Your task to perform on an android device: turn off notifications in google photos Image 0: 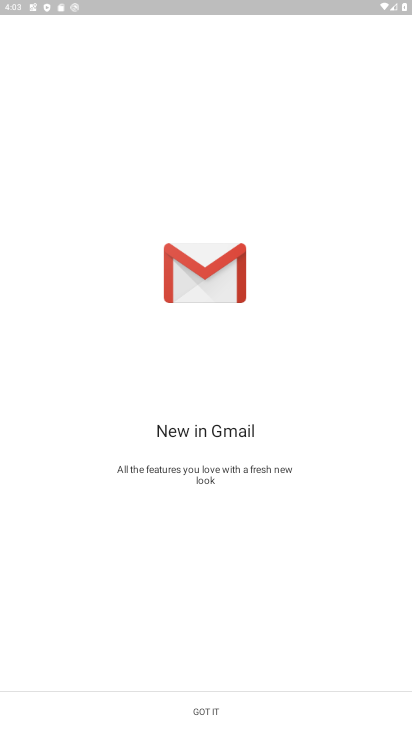
Step 0: press home button
Your task to perform on an android device: turn off notifications in google photos Image 1: 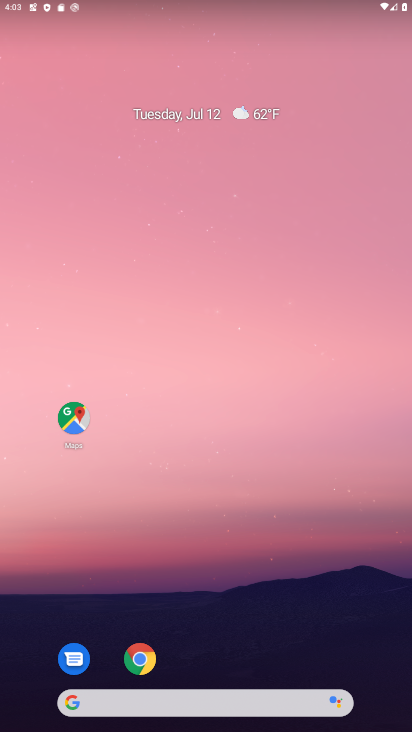
Step 1: drag from (222, 665) to (202, 185)
Your task to perform on an android device: turn off notifications in google photos Image 2: 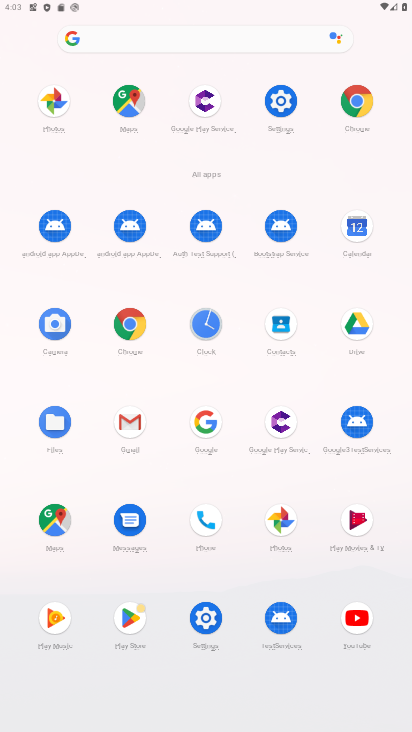
Step 2: click (279, 518)
Your task to perform on an android device: turn off notifications in google photos Image 3: 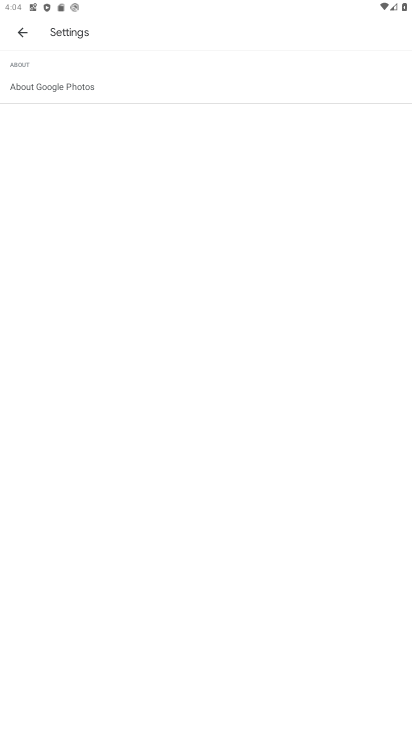
Step 3: press home button
Your task to perform on an android device: turn off notifications in google photos Image 4: 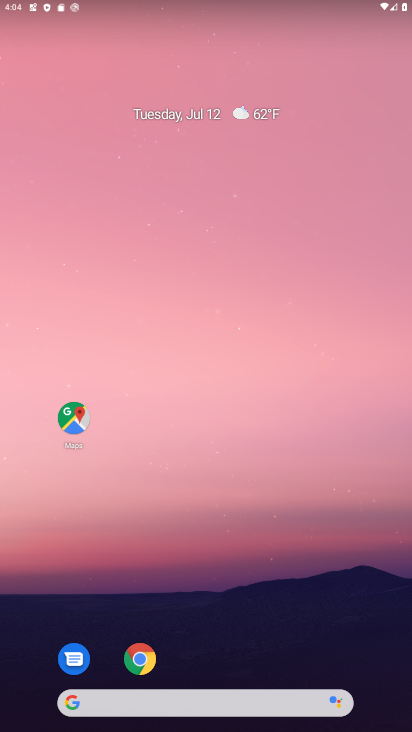
Step 4: drag from (192, 483) to (186, 129)
Your task to perform on an android device: turn off notifications in google photos Image 5: 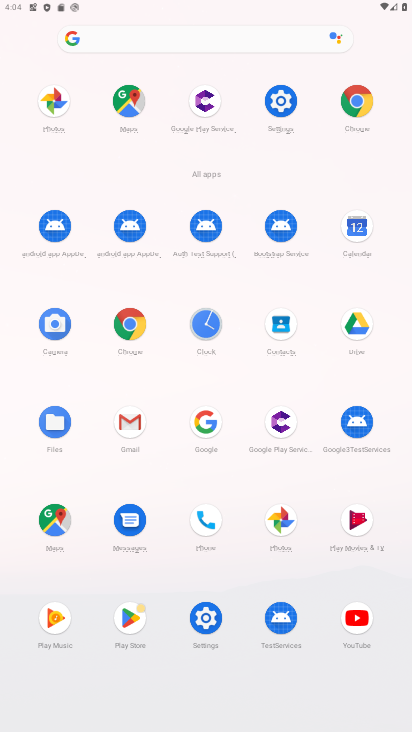
Step 5: click (279, 515)
Your task to perform on an android device: turn off notifications in google photos Image 6: 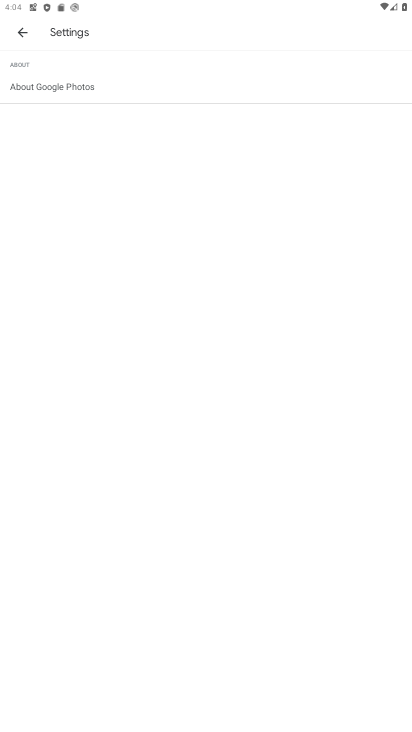
Step 6: click (26, 35)
Your task to perform on an android device: turn off notifications in google photos Image 7: 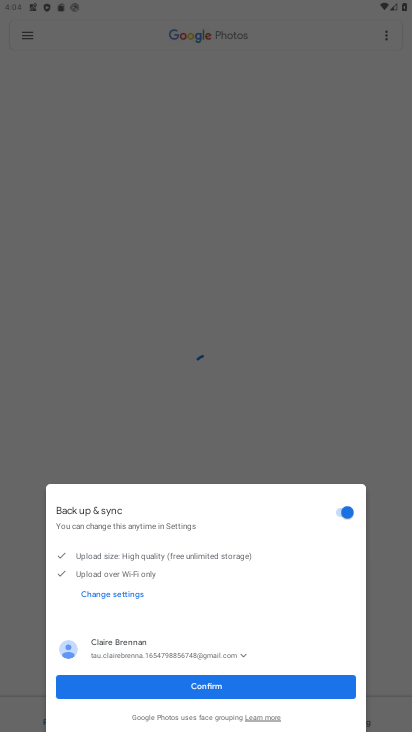
Step 7: click (210, 685)
Your task to perform on an android device: turn off notifications in google photos Image 8: 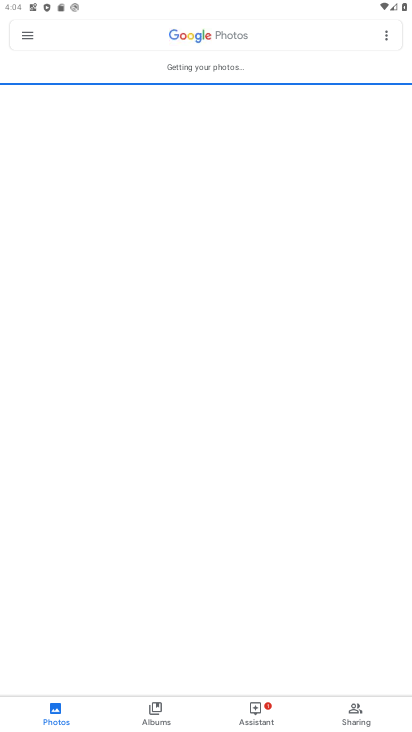
Step 8: click (31, 32)
Your task to perform on an android device: turn off notifications in google photos Image 9: 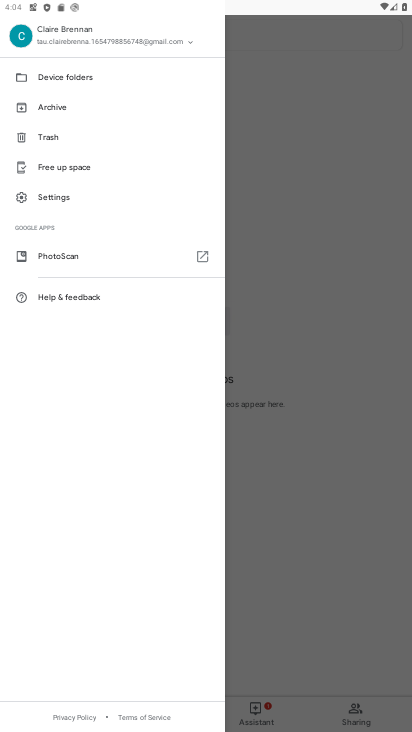
Step 9: click (70, 191)
Your task to perform on an android device: turn off notifications in google photos Image 10: 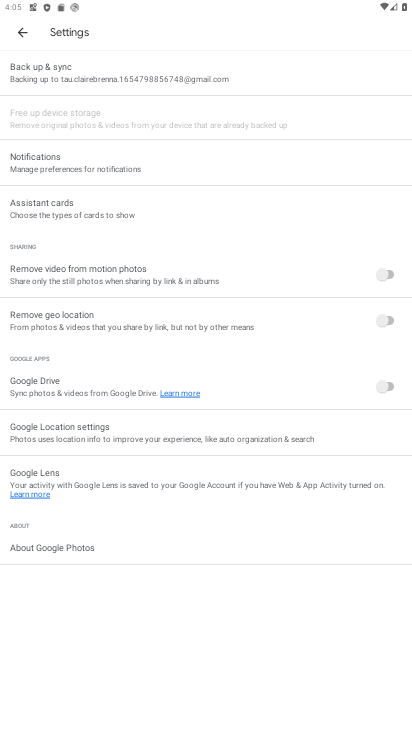
Step 10: click (90, 163)
Your task to perform on an android device: turn off notifications in google photos Image 11: 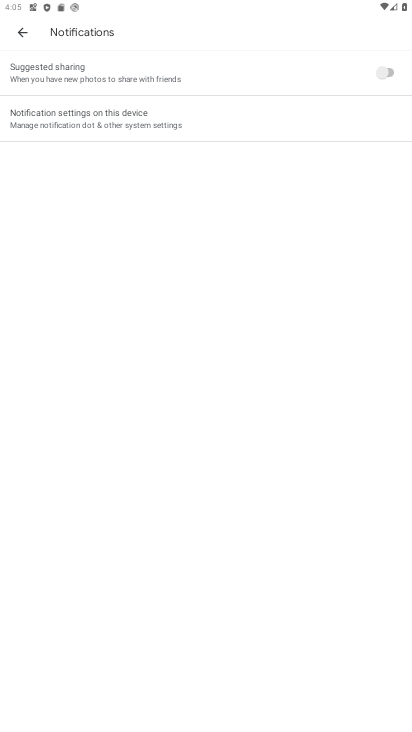
Step 11: click (128, 121)
Your task to perform on an android device: turn off notifications in google photos Image 12: 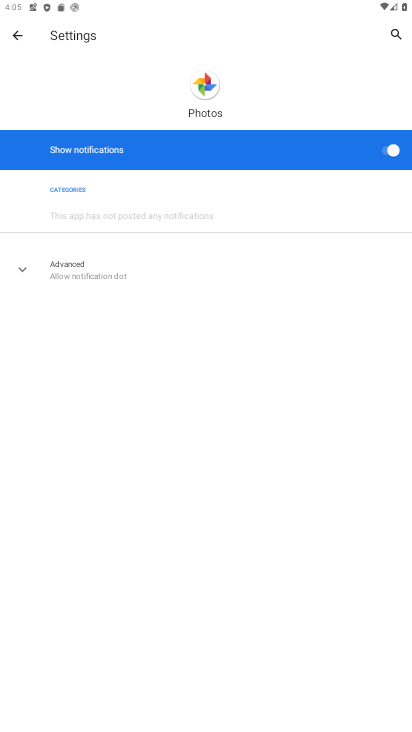
Step 12: click (379, 150)
Your task to perform on an android device: turn off notifications in google photos Image 13: 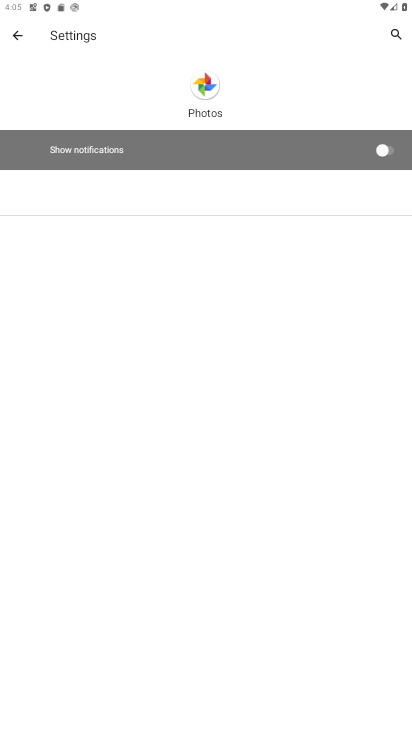
Step 13: task complete